Your task to perform on an android device: Open Chrome and go to settings Image 0: 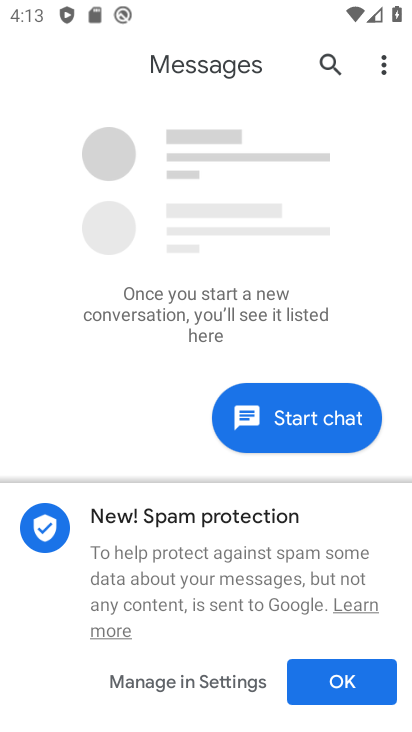
Step 0: press home button
Your task to perform on an android device: Open Chrome and go to settings Image 1: 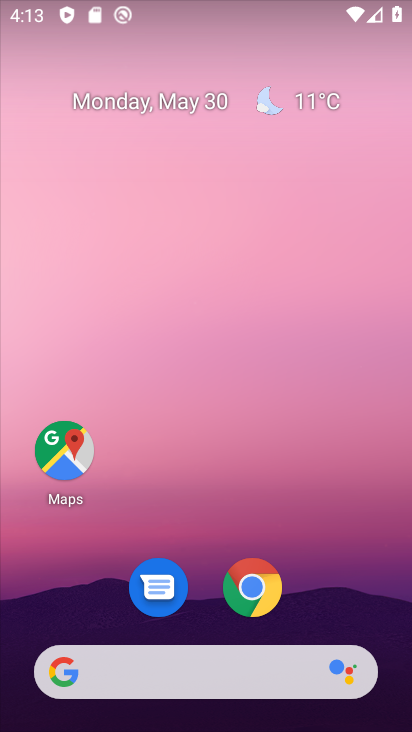
Step 1: click (260, 594)
Your task to perform on an android device: Open Chrome and go to settings Image 2: 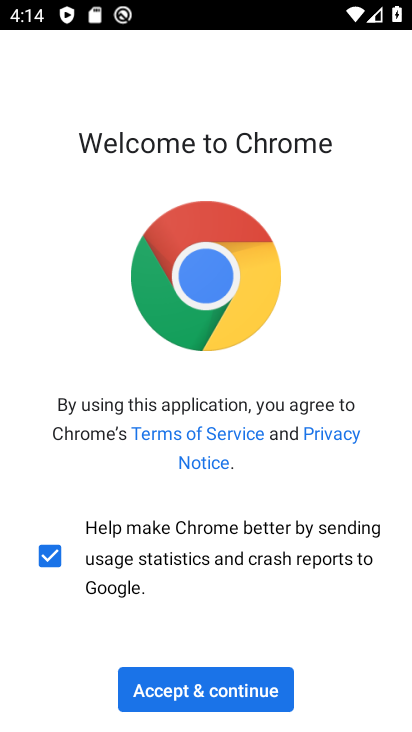
Step 2: click (241, 677)
Your task to perform on an android device: Open Chrome and go to settings Image 3: 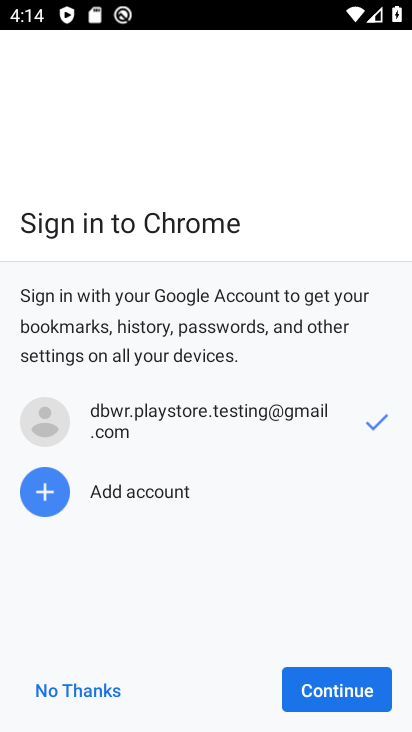
Step 3: click (362, 689)
Your task to perform on an android device: Open Chrome and go to settings Image 4: 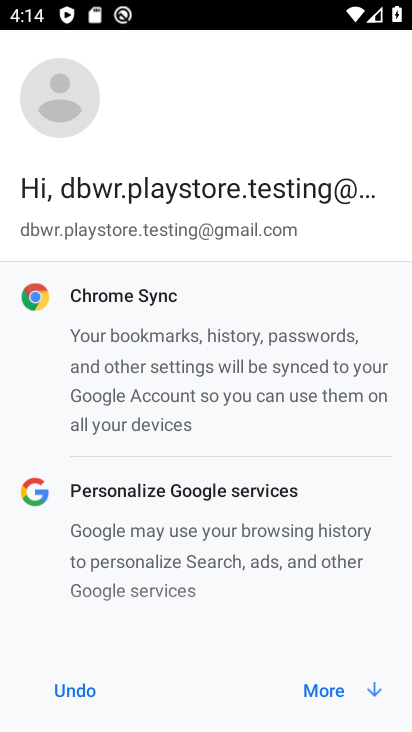
Step 4: click (362, 689)
Your task to perform on an android device: Open Chrome and go to settings Image 5: 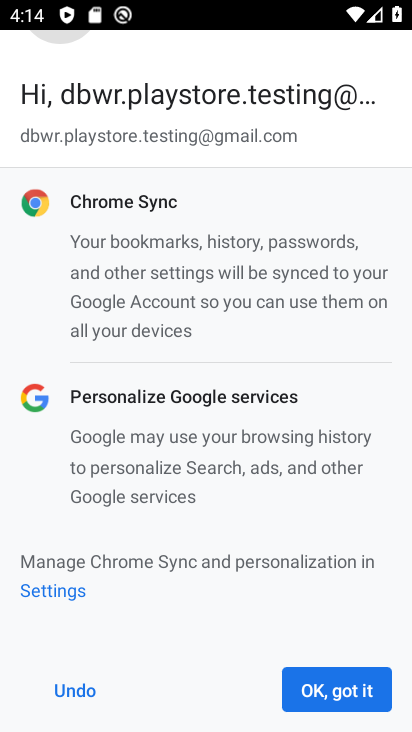
Step 5: click (362, 689)
Your task to perform on an android device: Open Chrome and go to settings Image 6: 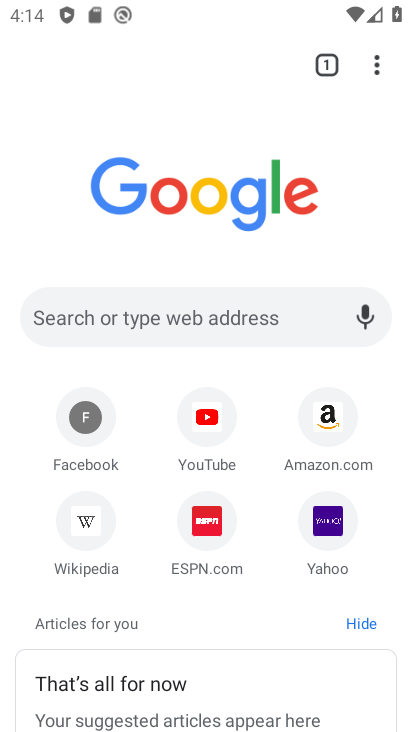
Step 6: click (367, 63)
Your task to perform on an android device: Open Chrome and go to settings Image 7: 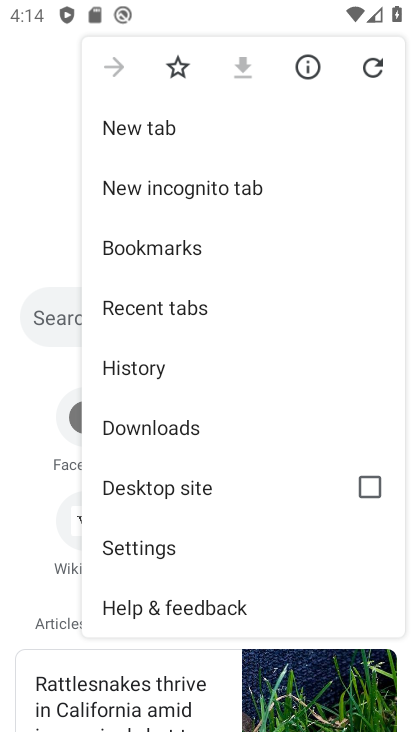
Step 7: click (190, 540)
Your task to perform on an android device: Open Chrome and go to settings Image 8: 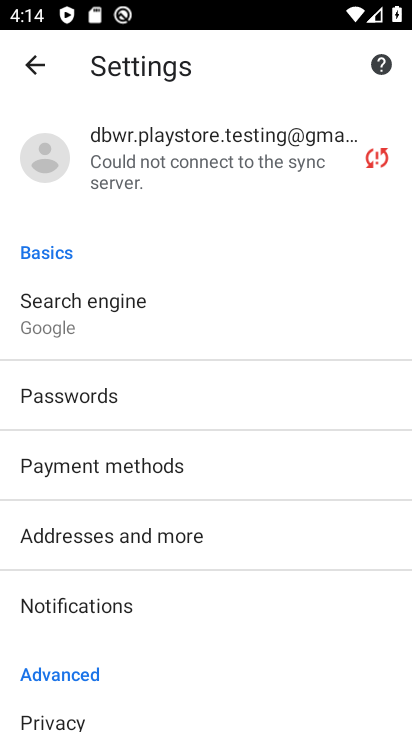
Step 8: task complete